Your task to perform on an android device: Go to sound settings Image 0: 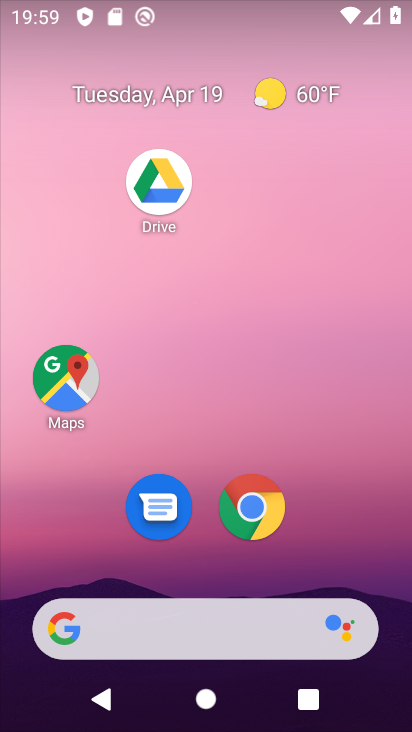
Step 0: drag from (359, 494) to (316, 168)
Your task to perform on an android device: Go to sound settings Image 1: 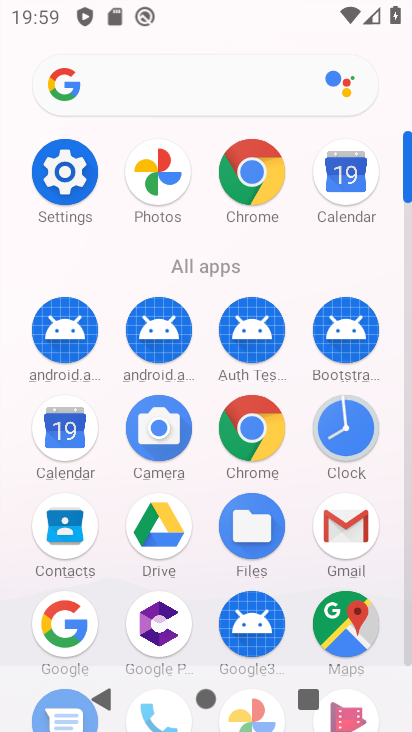
Step 1: click (81, 172)
Your task to perform on an android device: Go to sound settings Image 2: 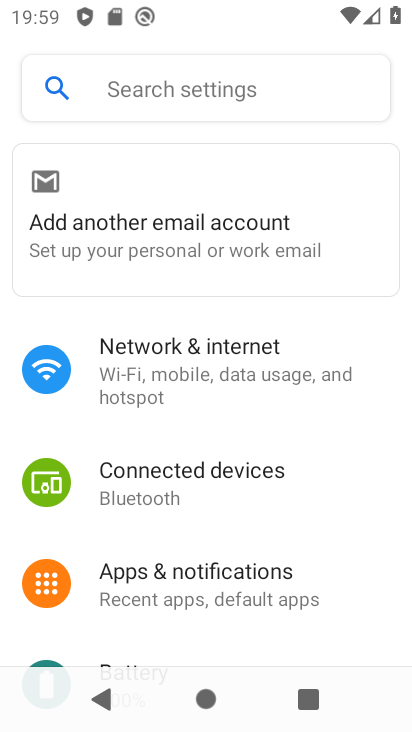
Step 2: drag from (224, 513) to (217, 260)
Your task to perform on an android device: Go to sound settings Image 3: 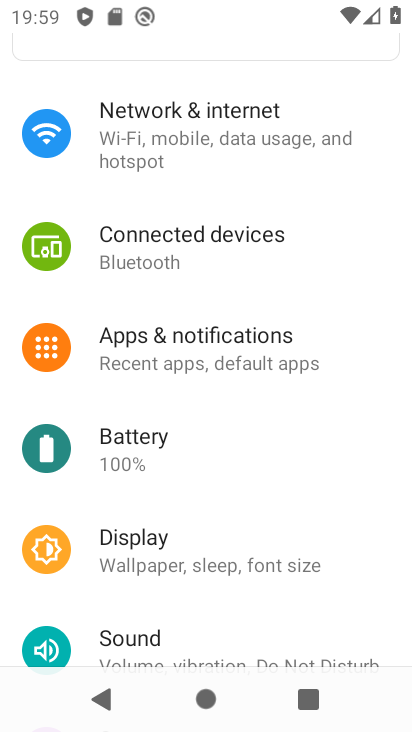
Step 3: drag from (256, 482) to (236, 225)
Your task to perform on an android device: Go to sound settings Image 4: 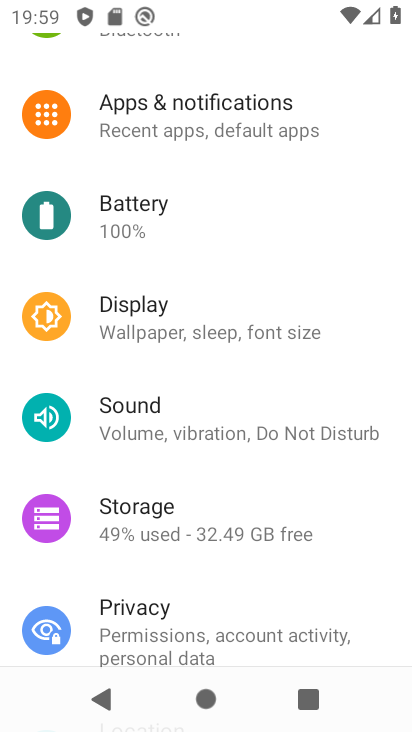
Step 4: click (249, 420)
Your task to perform on an android device: Go to sound settings Image 5: 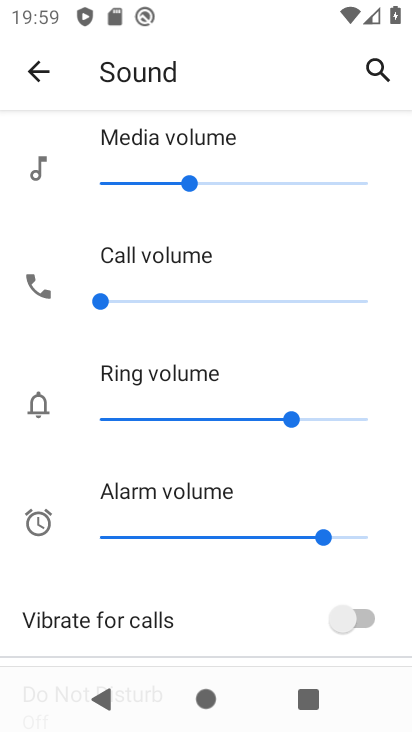
Step 5: task complete